Your task to perform on an android device: Search for sushi restaurants on Maps Image 0: 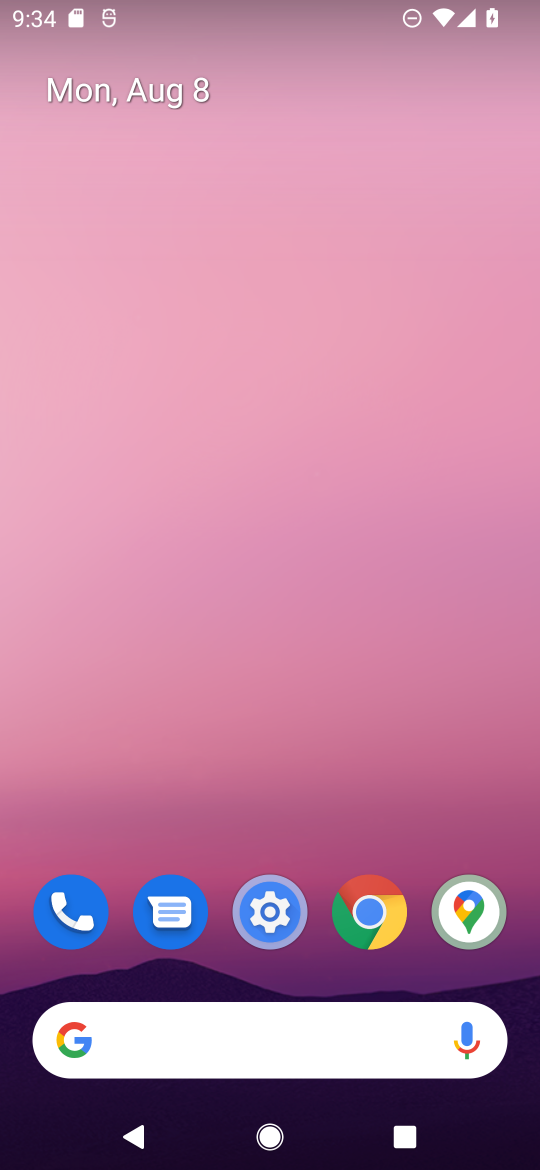
Step 0: drag from (540, 916) to (365, 15)
Your task to perform on an android device: Search for sushi restaurants on Maps Image 1: 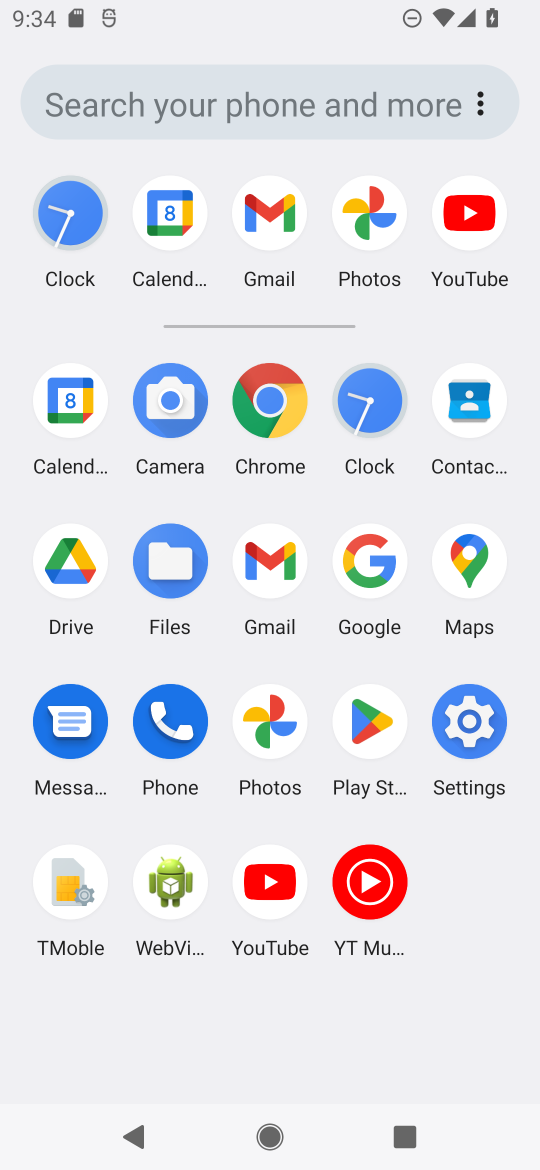
Step 1: click (456, 576)
Your task to perform on an android device: Search for sushi restaurants on Maps Image 2: 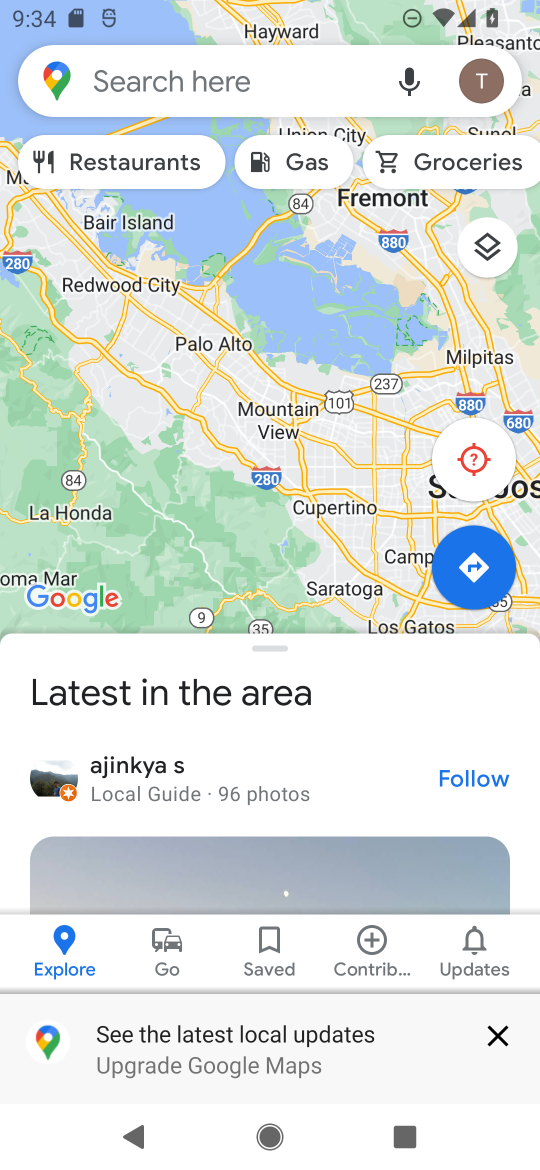
Step 2: click (204, 82)
Your task to perform on an android device: Search for sushi restaurants on Maps Image 3: 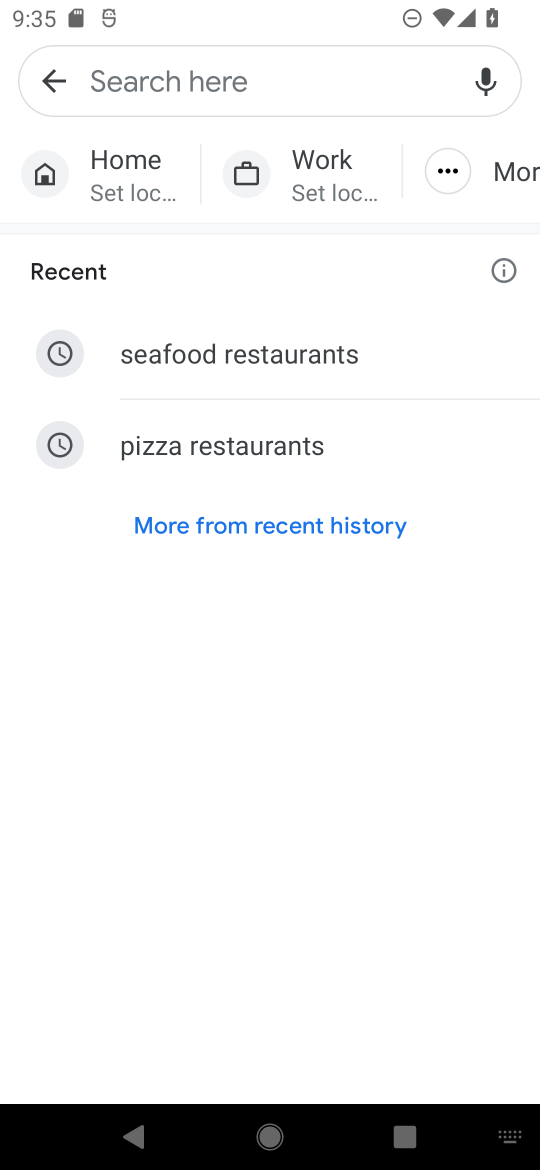
Step 3: type "sushi restaurants"
Your task to perform on an android device: Search for sushi restaurants on Maps Image 4: 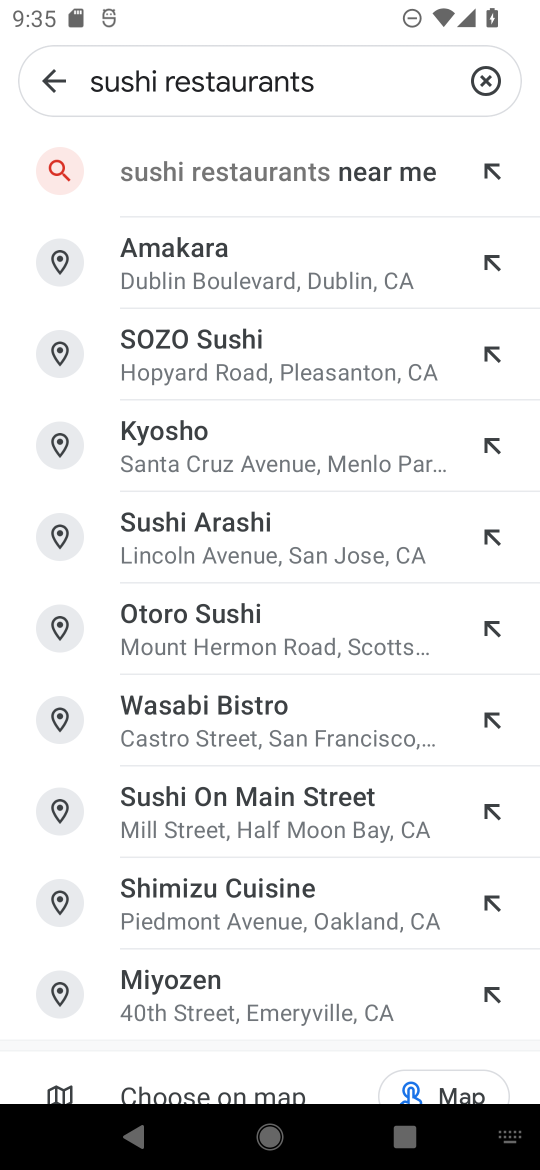
Step 4: click (265, 173)
Your task to perform on an android device: Search for sushi restaurants on Maps Image 5: 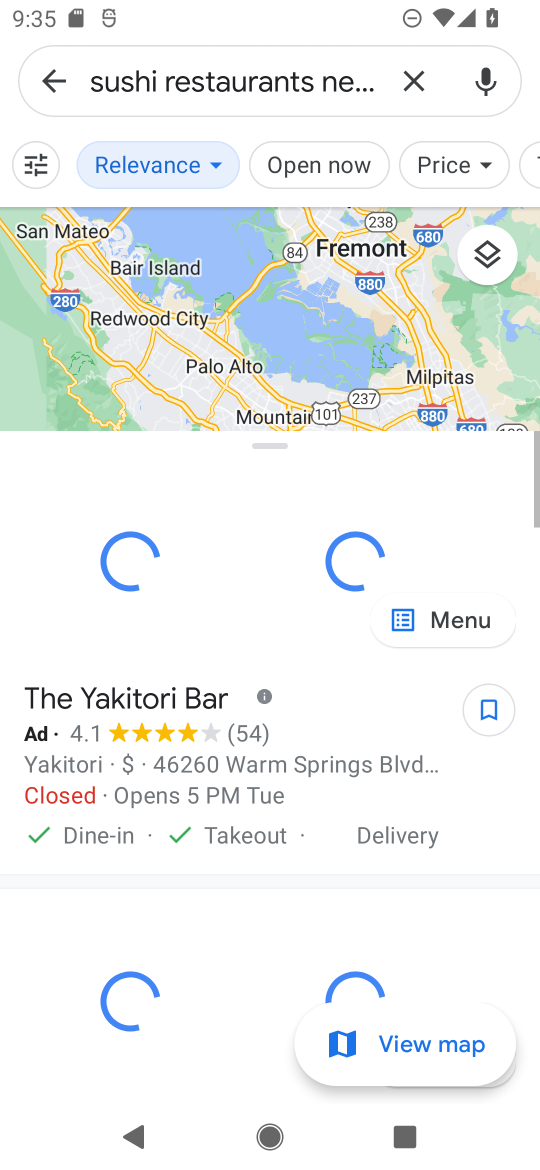
Step 5: task complete